Your task to perform on an android device: set default search engine in the chrome app Image 0: 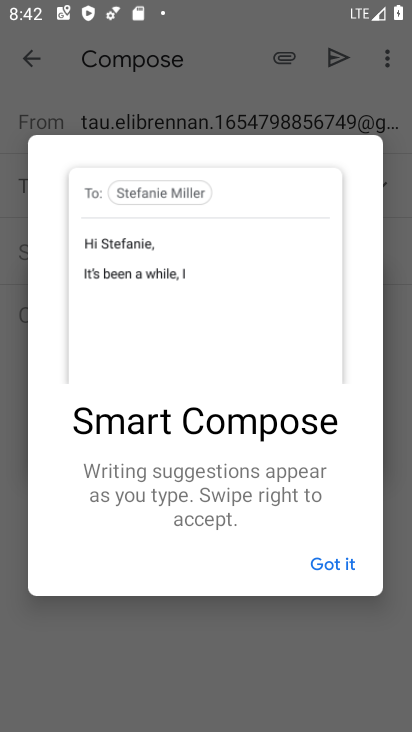
Step 0: press home button
Your task to perform on an android device: set default search engine in the chrome app Image 1: 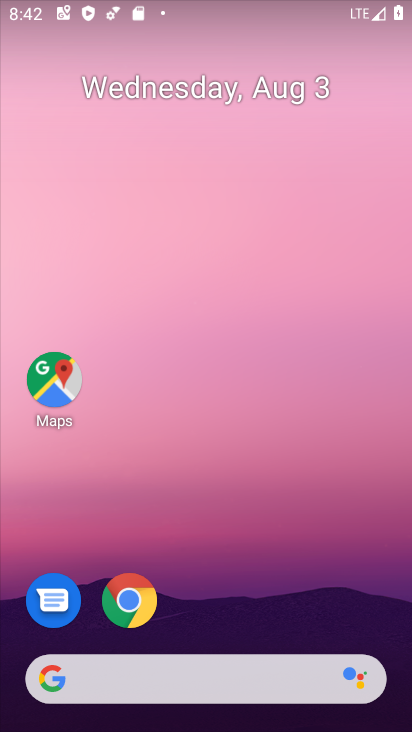
Step 1: click (102, 607)
Your task to perform on an android device: set default search engine in the chrome app Image 2: 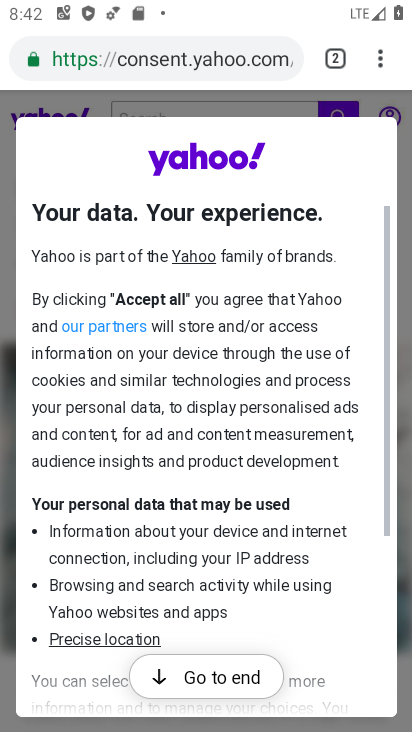
Step 2: click (368, 58)
Your task to perform on an android device: set default search engine in the chrome app Image 3: 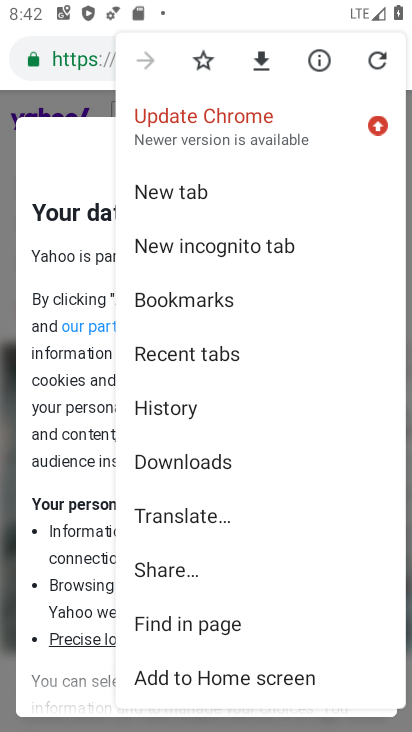
Step 3: drag from (200, 619) to (229, 226)
Your task to perform on an android device: set default search engine in the chrome app Image 4: 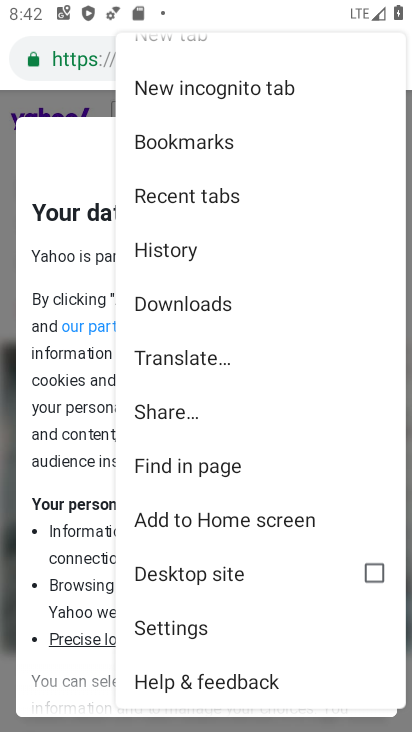
Step 4: click (186, 632)
Your task to perform on an android device: set default search engine in the chrome app Image 5: 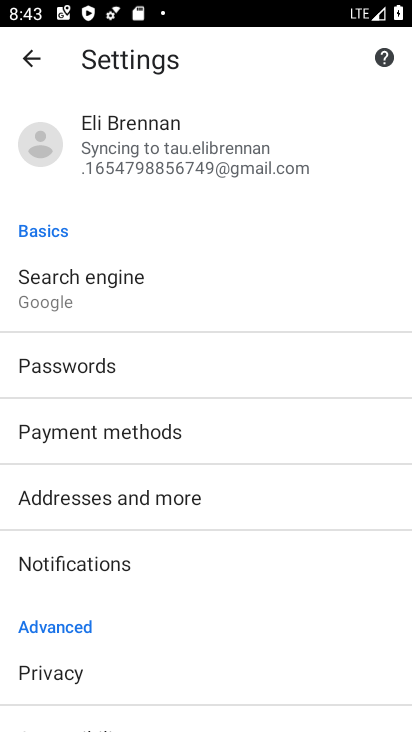
Step 5: click (115, 300)
Your task to perform on an android device: set default search engine in the chrome app Image 6: 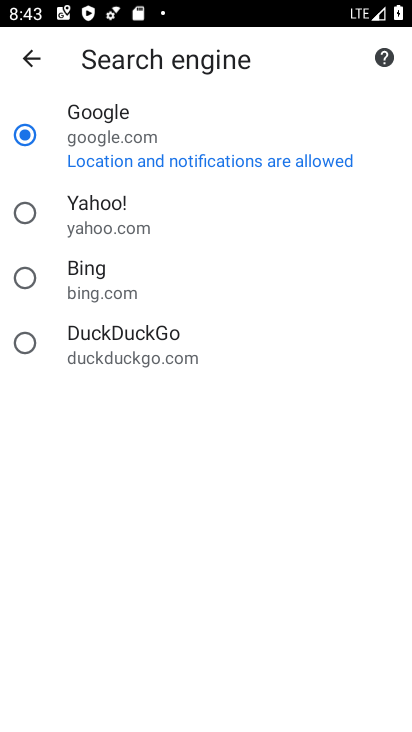
Step 6: task complete